Your task to perform on an android device: change the clock display to show seconds Image 0: 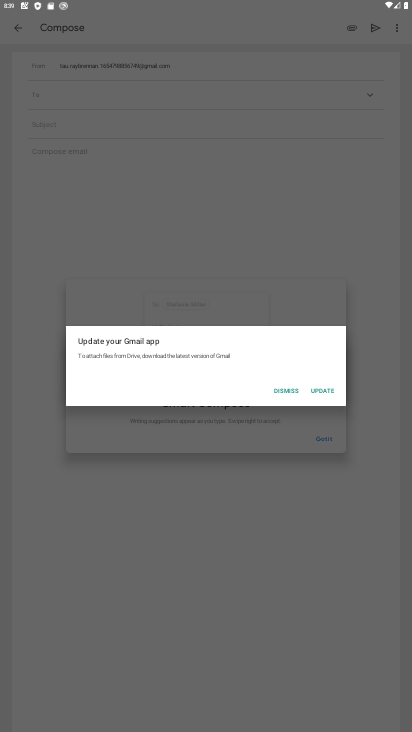
Step 0: press home button
Your task to perform on an android device: change the clock display to show seconds Image 1: 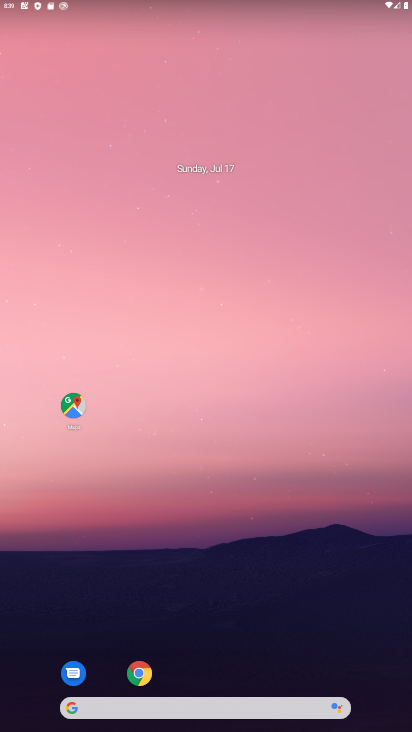
Step 1: drag from (287, 648) to (237, 68)
Your task to perform on an android device: change the clock display to show seconds Image 2: 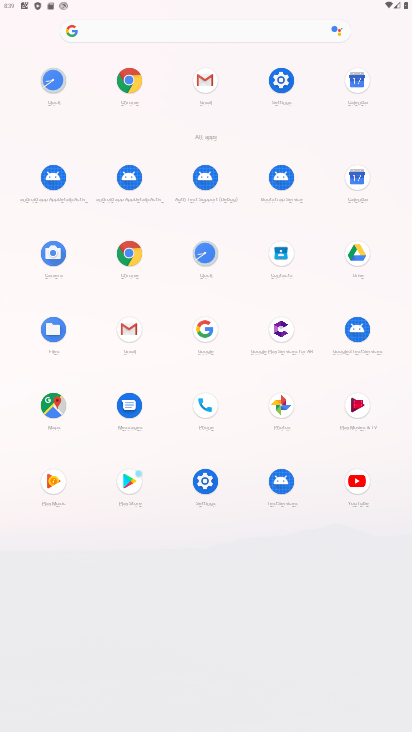
Step 2: click (210, 247)
Your task to perform on an android device: change the clock display to show seconds Image 3: 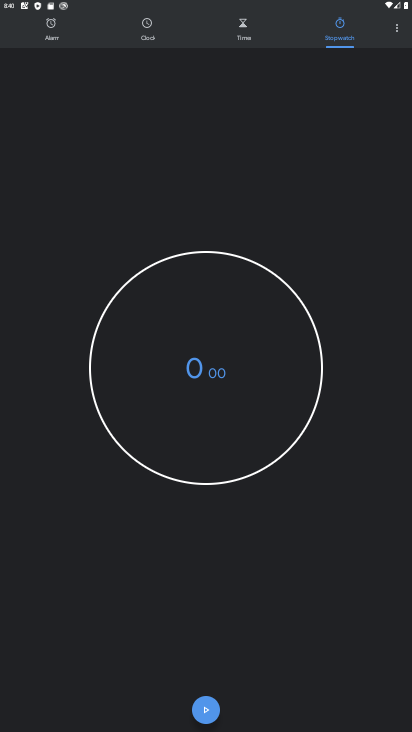
Step 3: click (402, 27)
Your task to perform on an android device: change the clock display to show seconds Image 4: 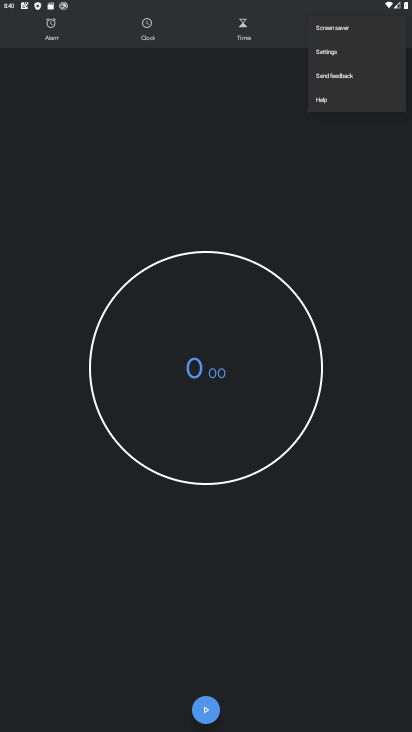
Step 4: click (324, 54)
Your task to perform on an android device: change the clock display to show seconds Image 5: 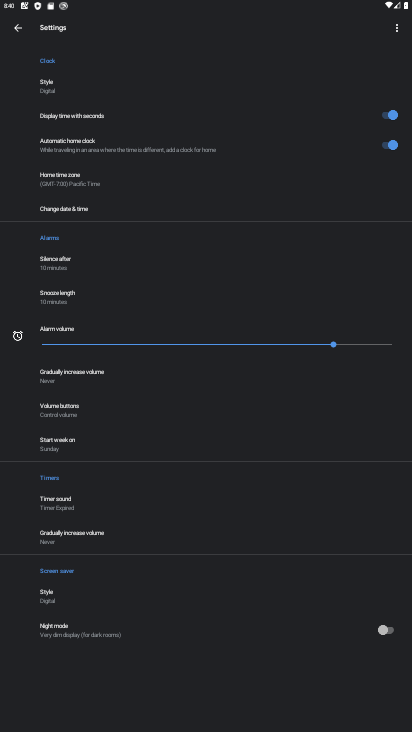
Step 5: task complete